Your task to perform on an android device: snooze an email in the gmail app Image 0: 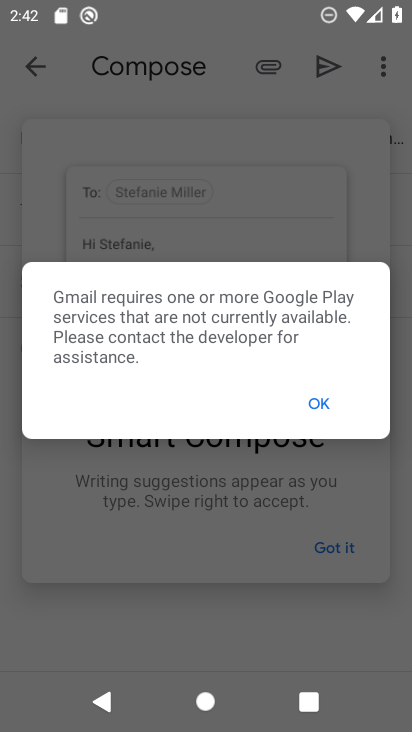
Step 0: press home button
Your task to perform on an android device: snooze an email in the gmail app Image 1: 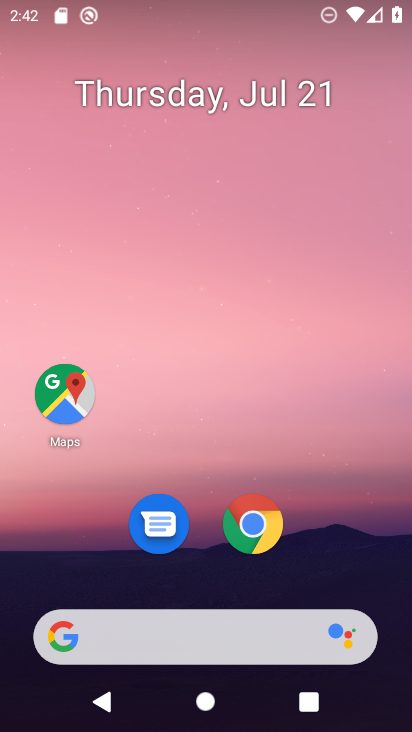
Step 1: drag from (221, 581) to (323, 36)
Your task to perform on an android device: snooze an email in the gmail app Image 2: 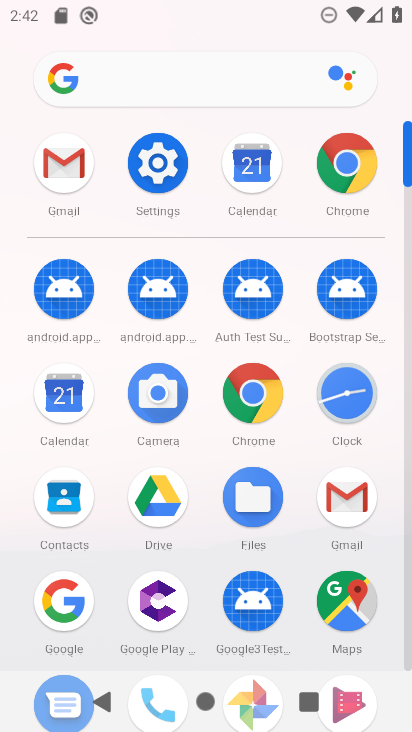
Step 2: click (56, 159)
Your task to perform on an android device: snooze an email in the gmail app Image 3: 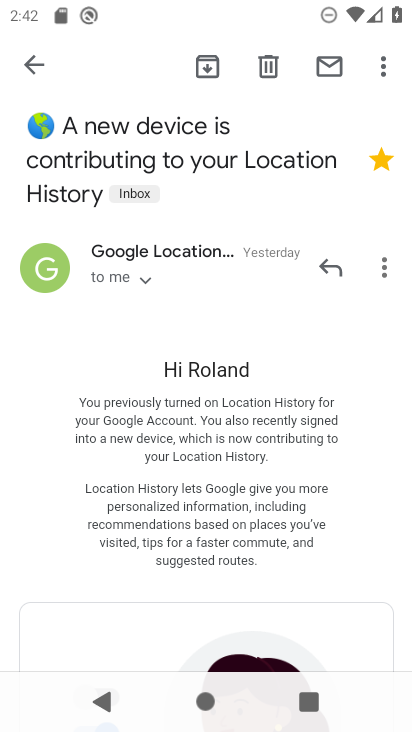
Step 3: click (34, 66)
Your task to perform on an android device: snooze an email in the gmail app Image 4: 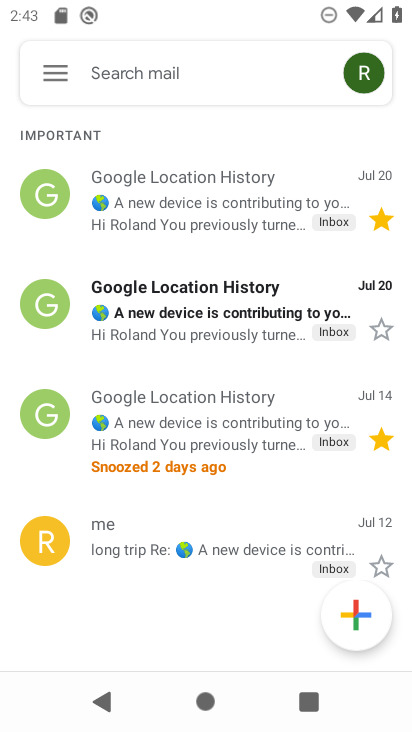
Step 4: click (43, 188)
Your task to perform on an android device: snooze an email in the gmail app Image 5: 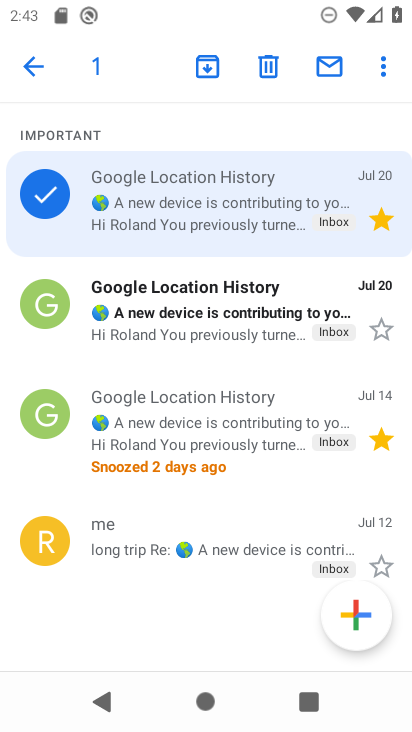
Step 5: click (381, 71)
Your task to perform on an android device: snooze an email in the gmail app Image 6: 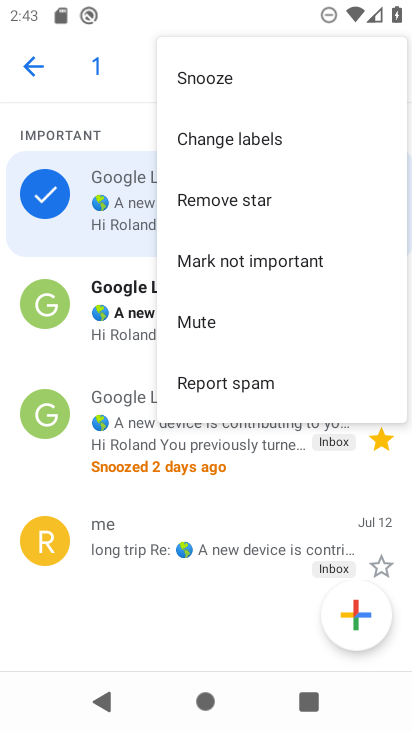
Step 6: click (214, 68)
Your task to perform on an android device: snooze an email in the gmail app Image 7: 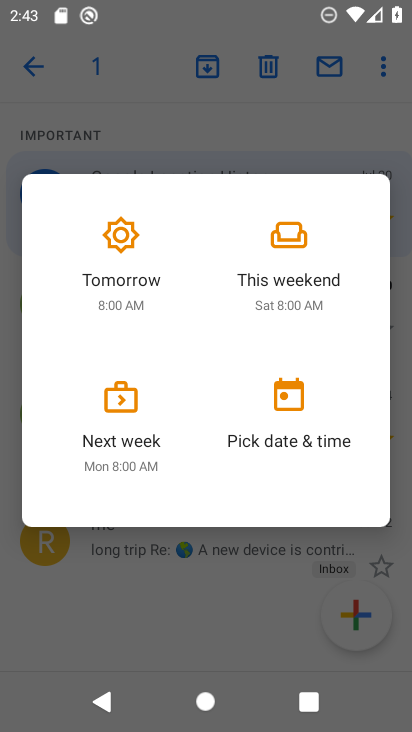
Step 7: click (132, 282)
Your task to perform on an android device: snooze an email in the gmail app Image 8: 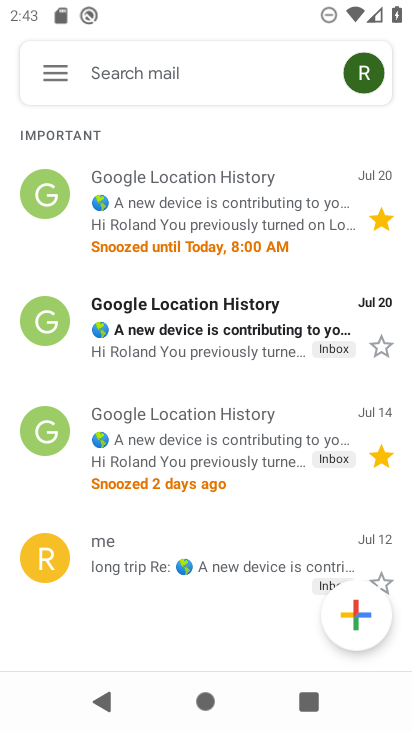
Step 8: task complete